Your task to perform on an android device: Find coffee shops on Maps Image 0: 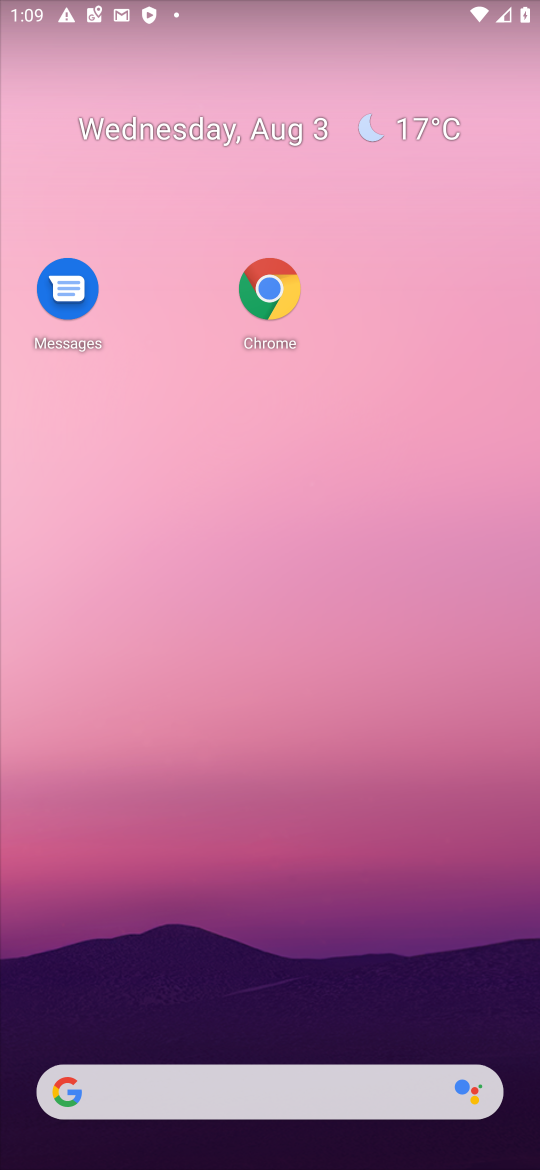
Step 0: drag from (344, 993) to (340, 273)
Your task to perform on an android device: Find coffee shops on Maps Image 1: 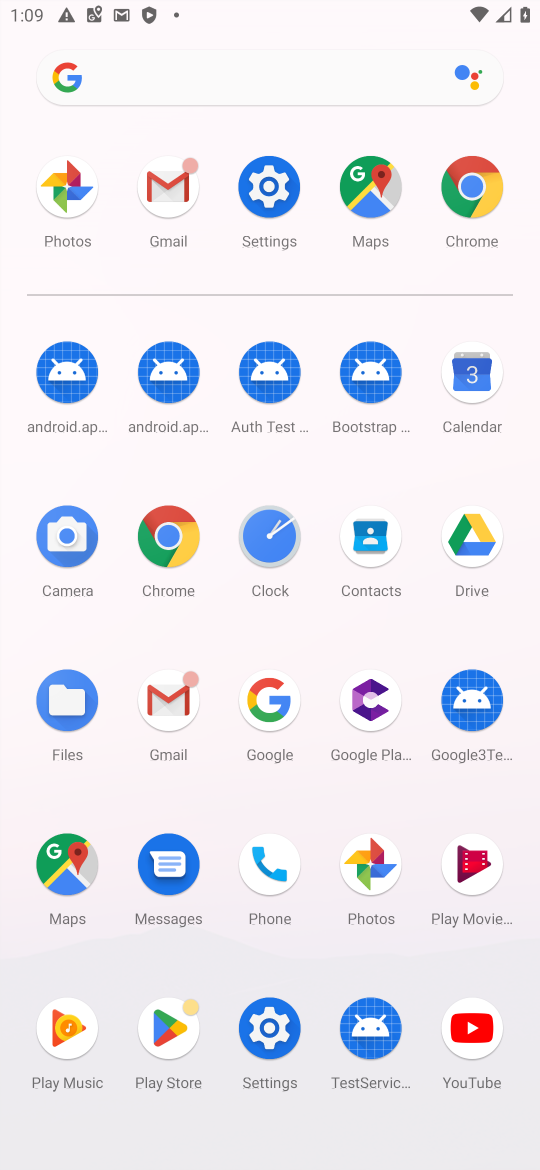
Step 1: click (60, 866)
Your task to perform on an android device: Find coffee shops on Maps Image 2: 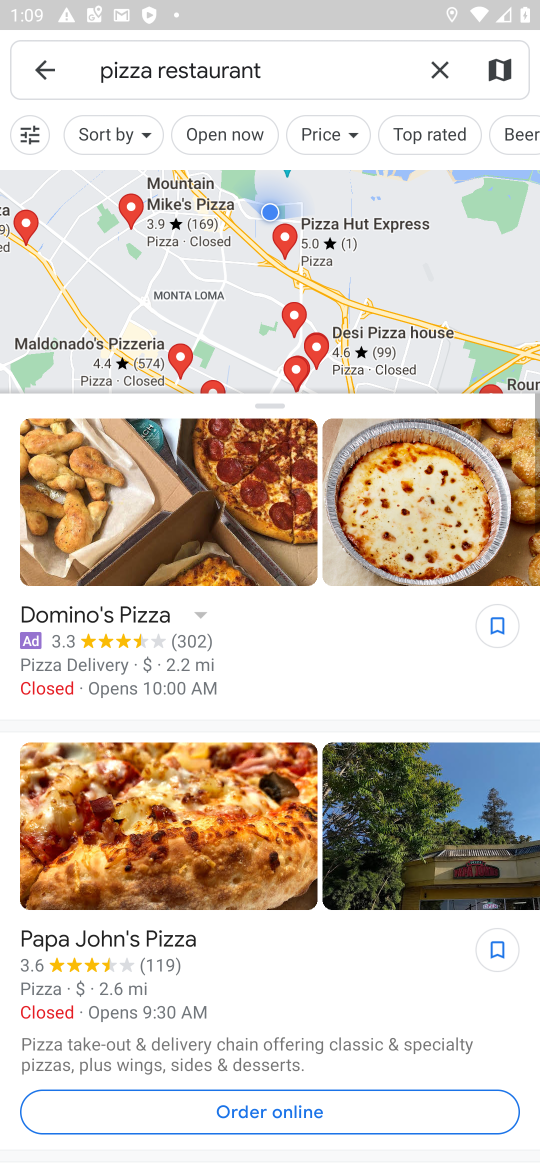
Step 2: click (441, 72)
Your task to perform on an android device: Find coffee shops on Maps Image 3: 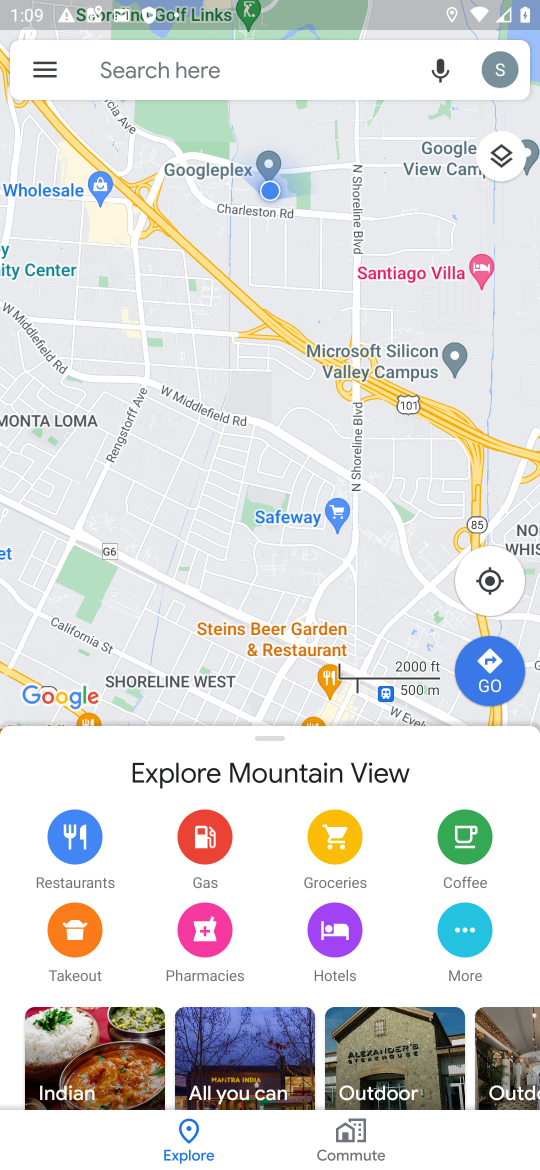
Step 3: click (342, 67)
Your task to perform on an android device: Find coffee shops on Maps Image 4: 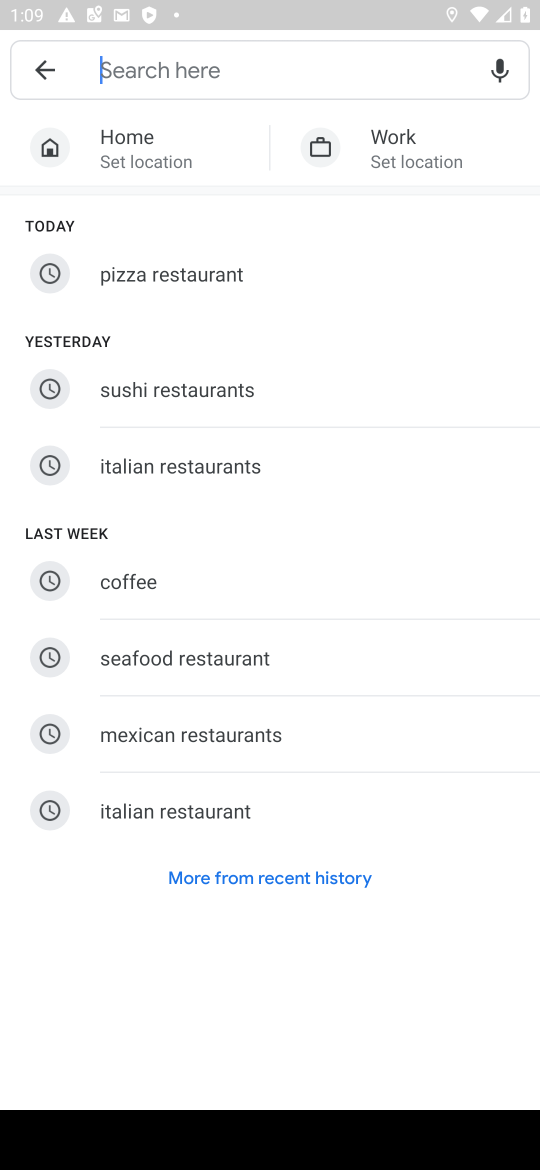
Step 4: type "coffee"
Your task to perform on an android device: Find coffee shops on Maps Image 5: 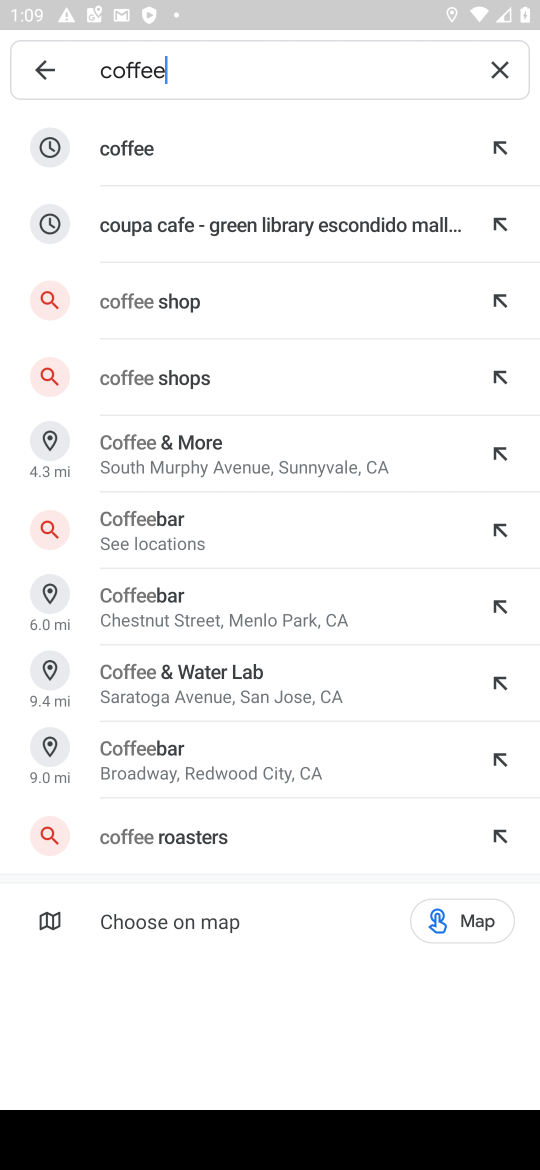
Step 5: click (257, 151)
Your task to perform on an android device: Find coffee shops on Maps Image 6: 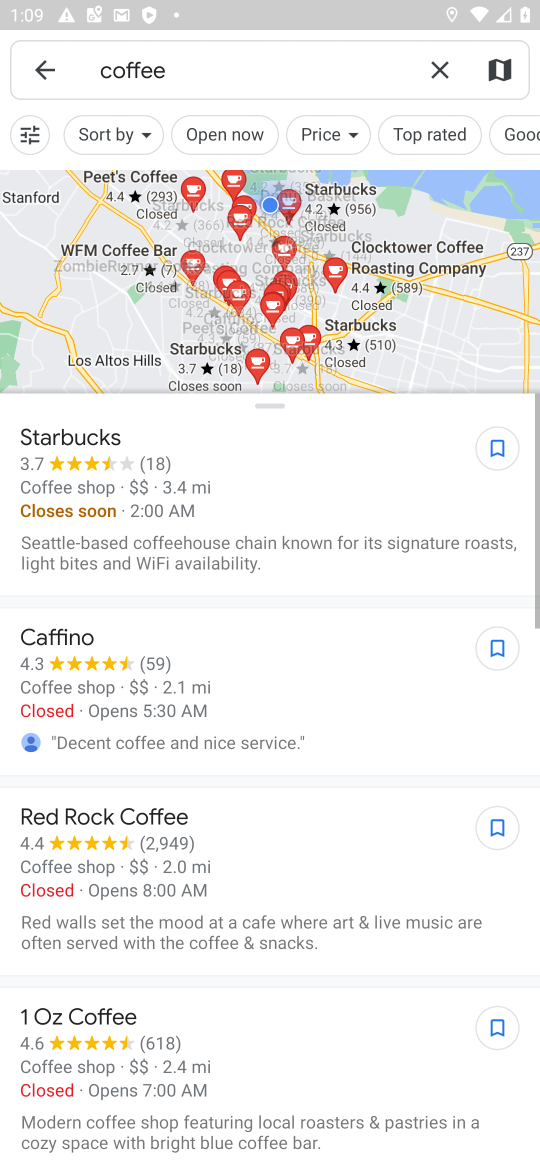
Step 6: task complete